Your task to perform on an android device: turn off notifications settings in the gmail app Image 0: 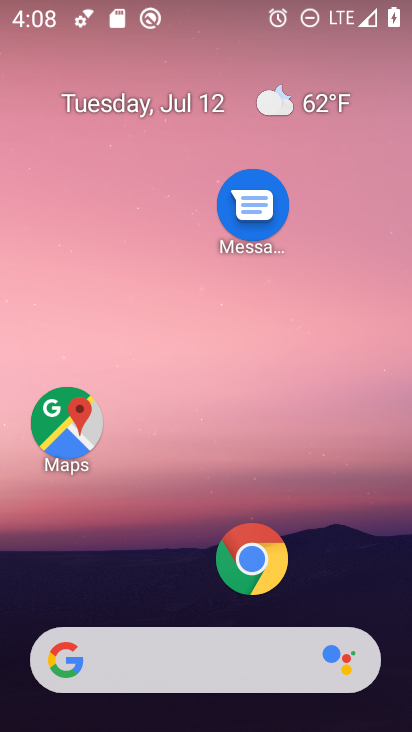
Step 0: drag from (167, 596) to (234, 10)
Your task to perform on an android device: turn off notifications settings in the gmail app Image 1: 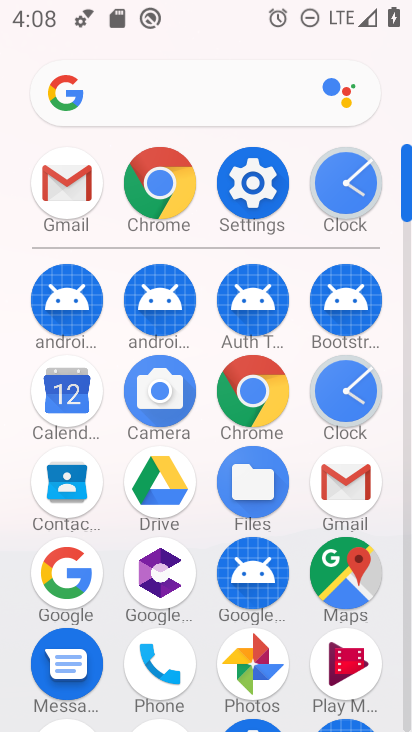
Step 1: click (77, 184)
Your task to perform on an android device: turn off notifications settings in the gmail app Image 2: 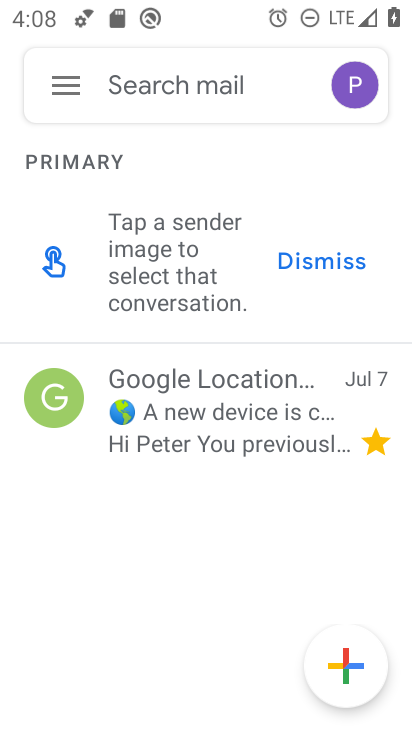
Step 2: click (58, 74)
Your task to perform on an android device: turn off notifications settings in the gmail app Image 3: 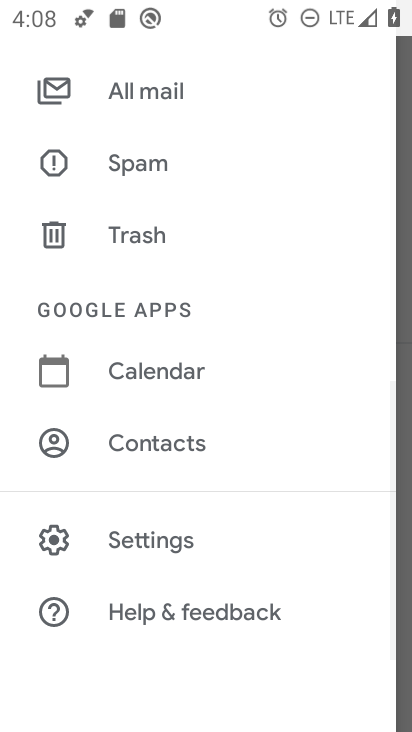
Step 3: click (149, 548)
Your task to perform on an android device: turn off notifications settings in the gmail app Image 4: 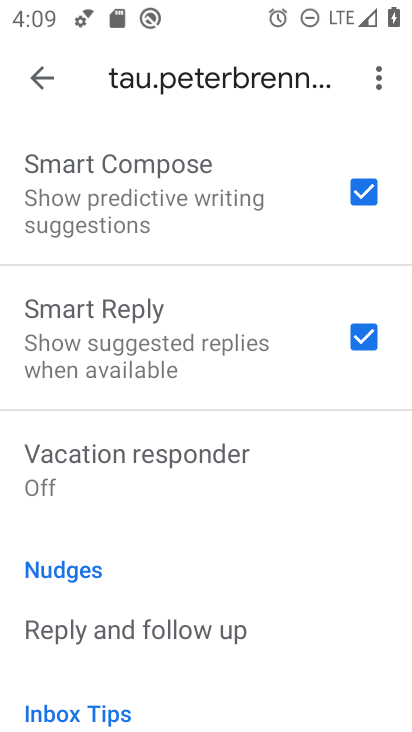
Step 4: drag from (102, 657) to (232, 48)
Your task to perform on an android device: turn off notifications settings in the gmail app Image 5: 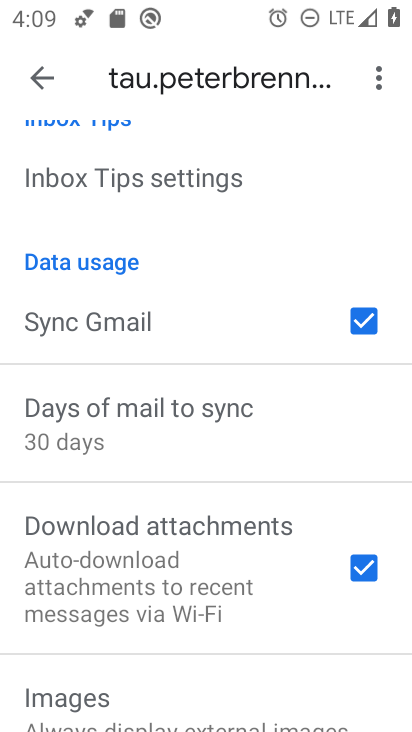
Step 5: drag from (141, 642) to (295, 48)
Your task to perform on an android device: turn off notifications settings in the gmail app Image 6: 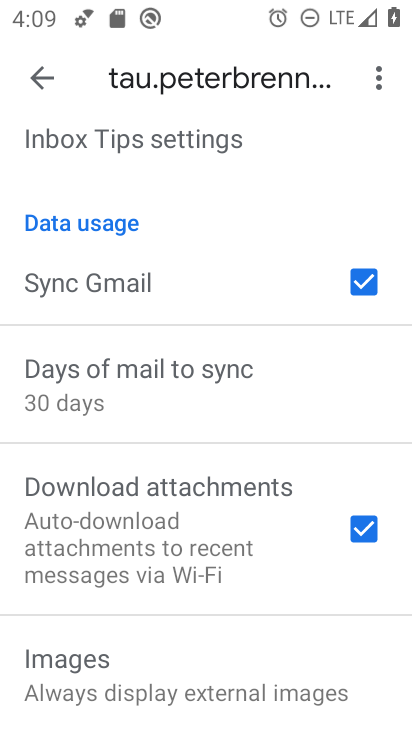
Step 6: drag from (178, 664) to (94, 707)
Your task to perform on an android device: turn off notifications settings in the gmail app Image 7: 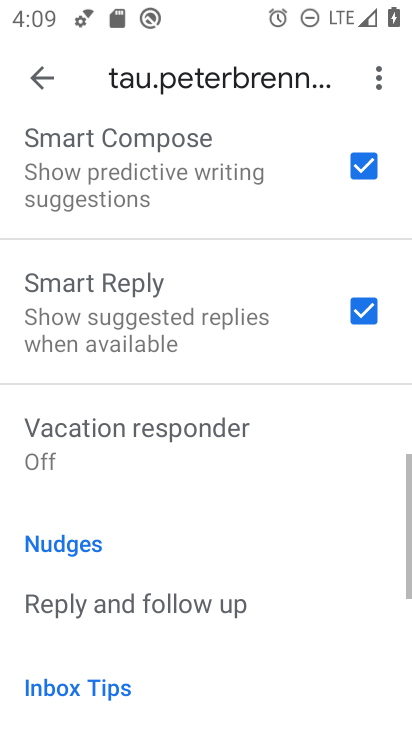
Step 7: drag from (195, 189) to (151, 724)
Your task to perform on an android device: turn off notifications settings in the gmail app Image 8: 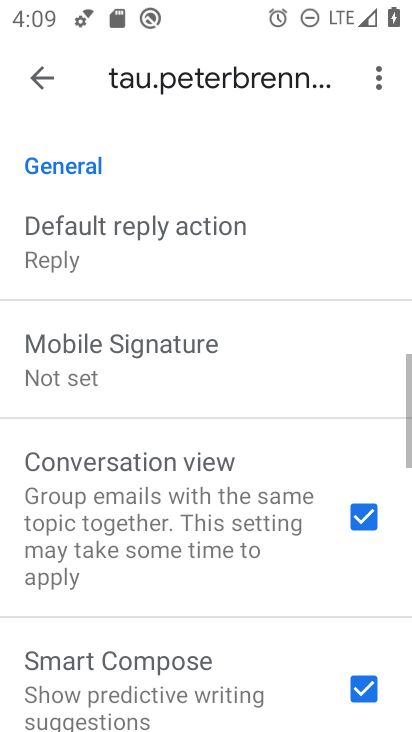
Step 8: drag from (169, 184) to (122, 731)
Your task to perform on an android device: turn off notifications settings in the gmail app Image 9: 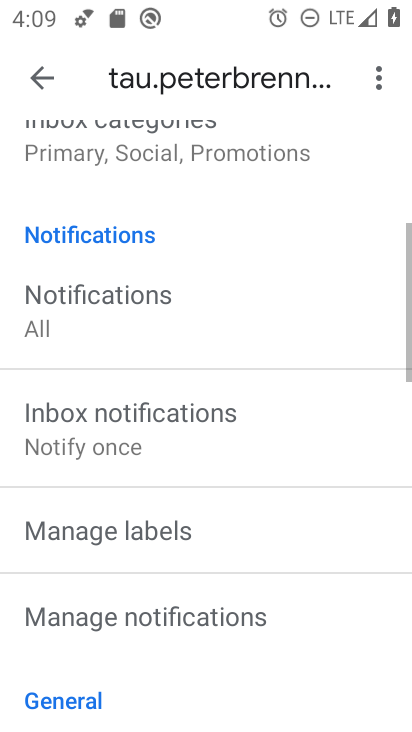
Step 9: click (108, 623)
Your task to perform on an android device: turn off notifications settings in the gmail app Image 10: 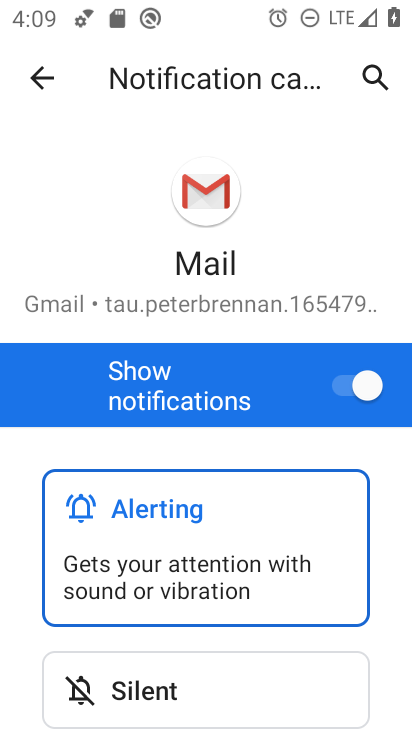
Step 10: click (360, 385)
Your task to perform on an android device: turn off notifications settings in the gmail app Image 11: 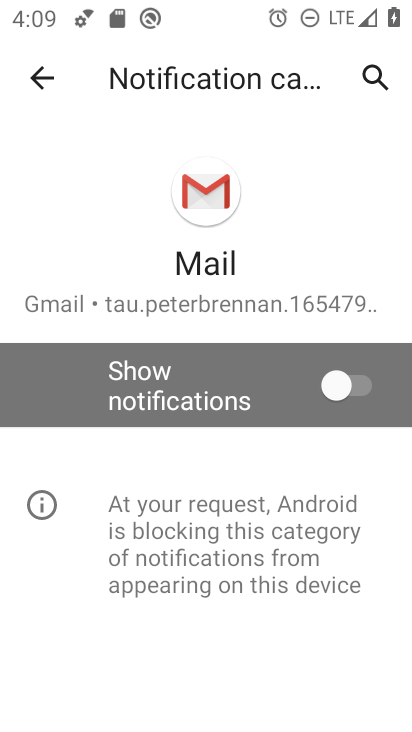
Step 11: task complete